Your task to perform on an android device: Go to eBay Image 0: 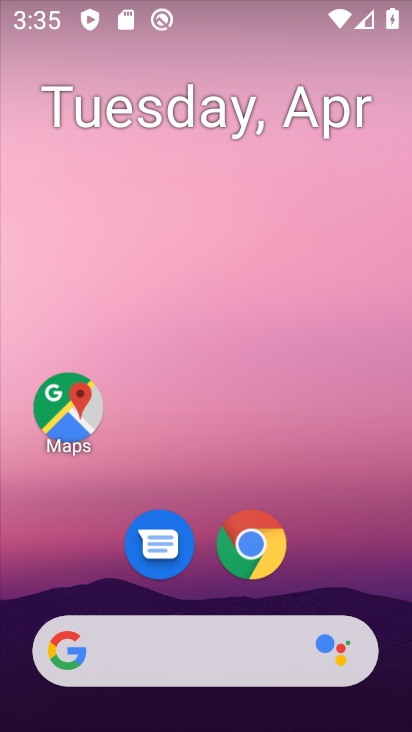
Step 0: click (268, 560)
Your task to perform on an android device: Go to eBay Image 1: 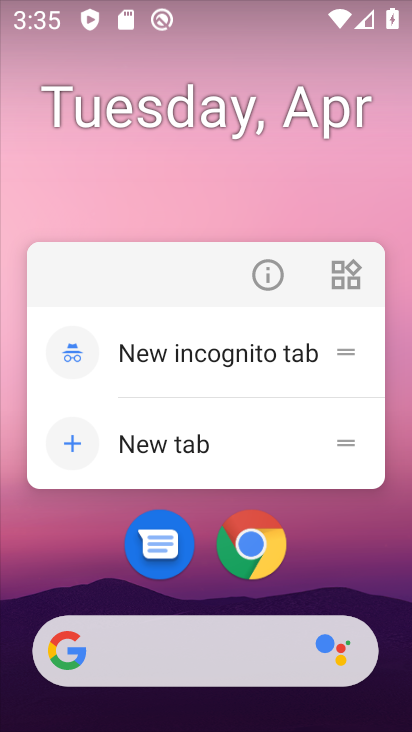
Step 1: click (335, 573)
Your task to perform on an android device: Go to eBay Image 2: 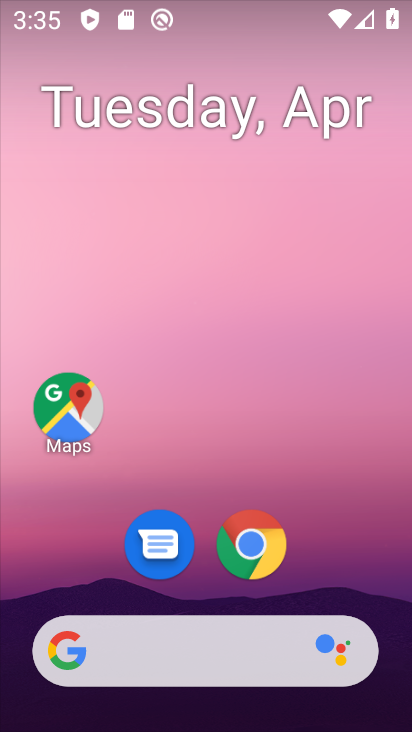
Step 2: click (254, 538)
Your task to perform on an android device: Go to eBay Image 3: 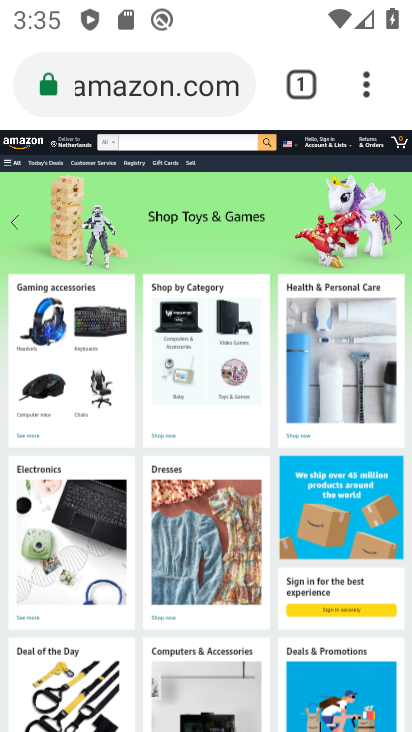
Step 3: click (175, 91)
Your task to perform on an android device: Go to eBay Image 4: 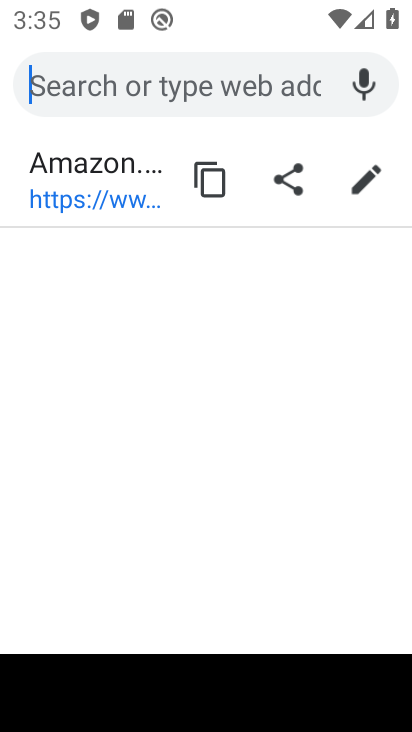
Step 4: type "ebay"
Your task to perform on an android device: Go to eBay Image 5: 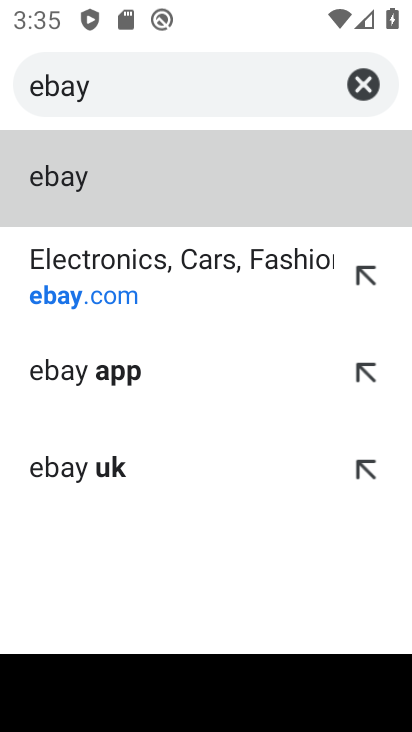
Step 5: click (115, 302)
Your task to perform on an android device: Go to eBay Image 6: 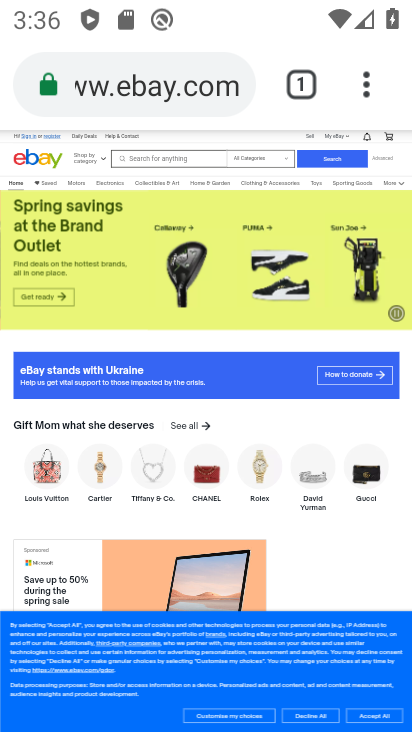
Step 6: task complete